Your task to perform on an android device: Go to Reddit.com Image 0: 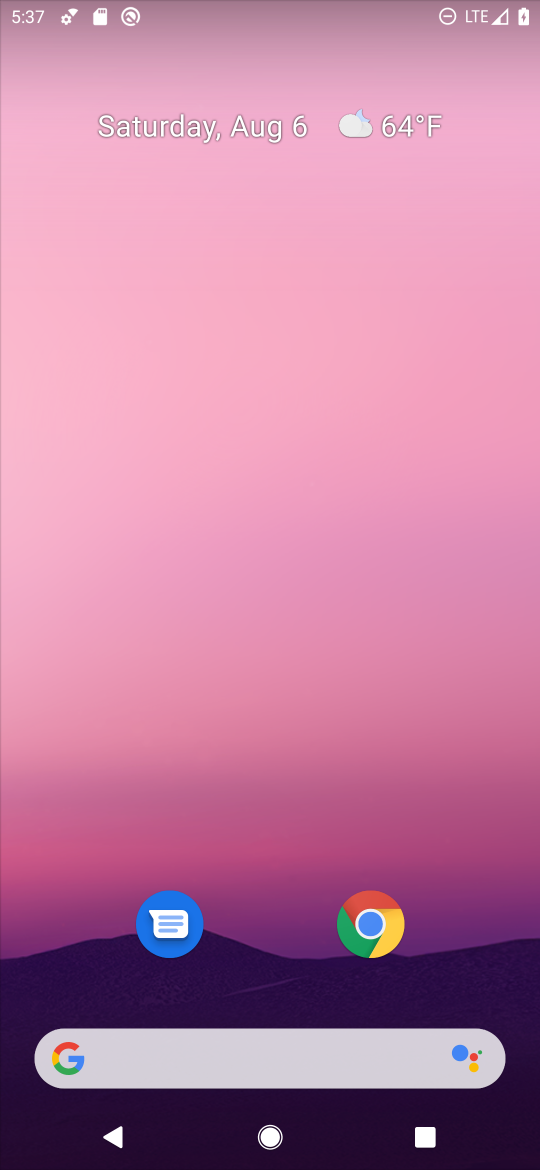
Step 0: click (292, 1062)
Your task to perform on an android device: Go to Reddit.com Image 1: 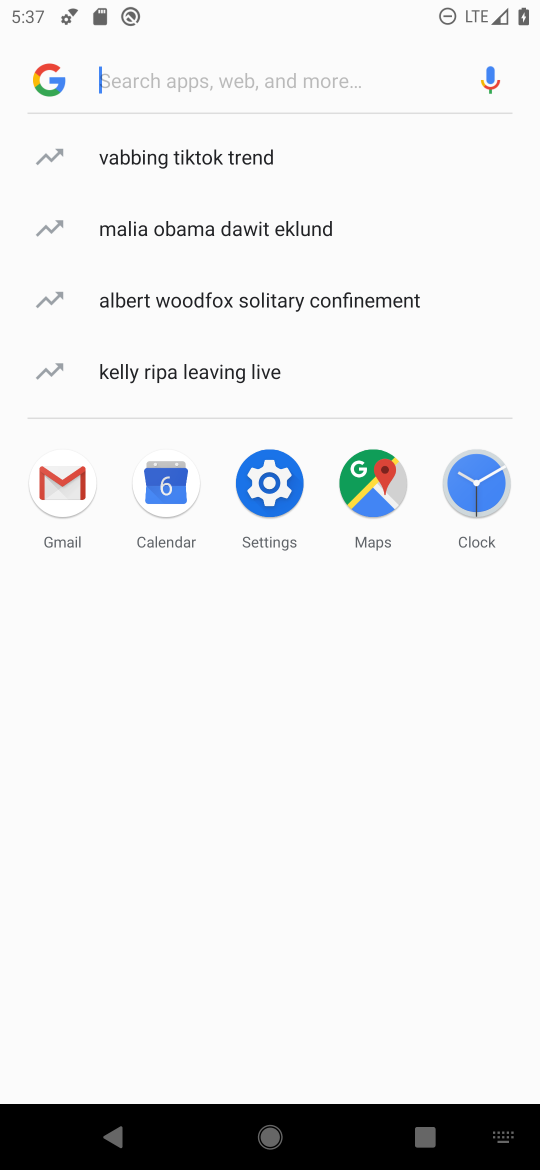
Step 1: type "reddit.com"
Your task to perform on an android device: Go to Reddit.com Image 2: 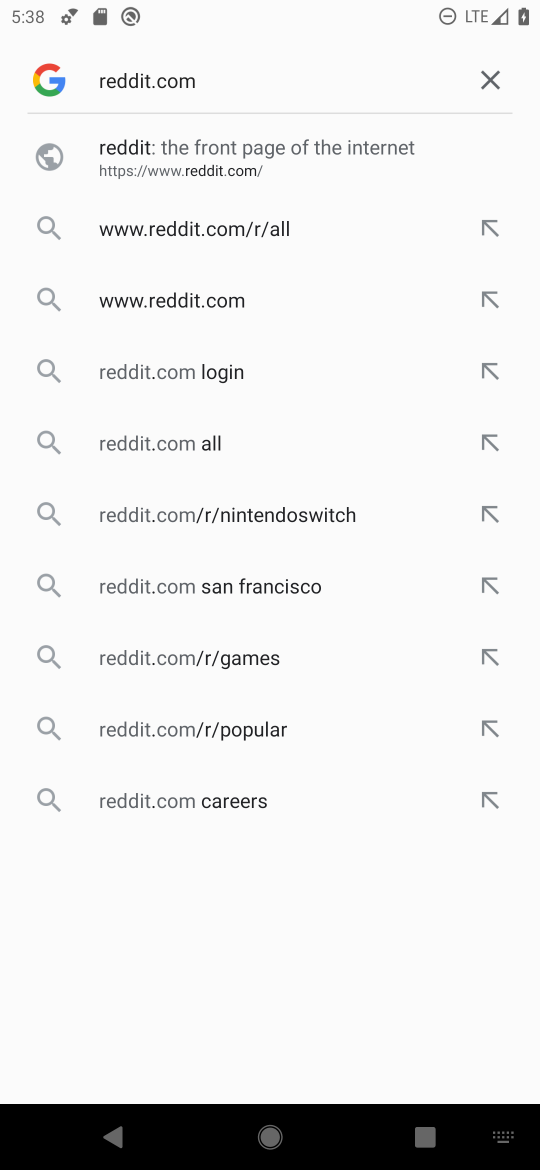
Step 2: click (131, 134)
Your task to perform on an android device: Go to Reddit.com Image 3: 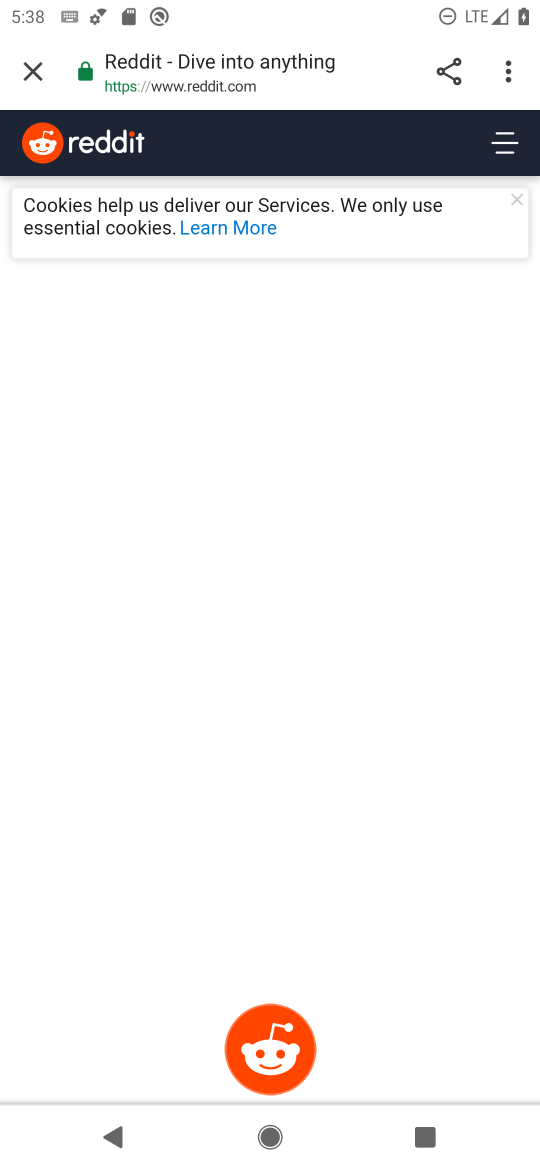
Step 3: task complete